Your task to perform on an android device: turn on bluetooth scan Image 0: 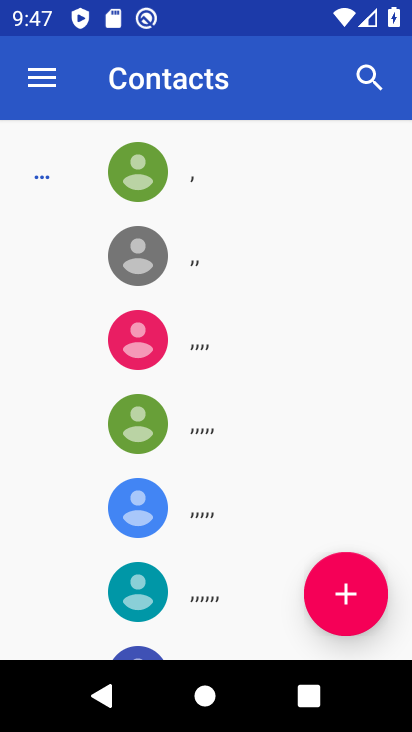
Step 0: drag from (139, 621) to (290, 319)
Your task to perform on an android device: turn on bluetooth scan Image 1: 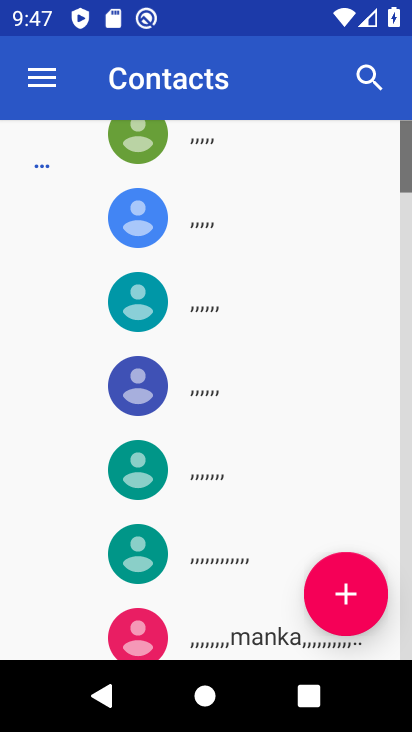
Step 1: press home button
Your task to perform on an android device: turn on bluetooth scan Image 2: 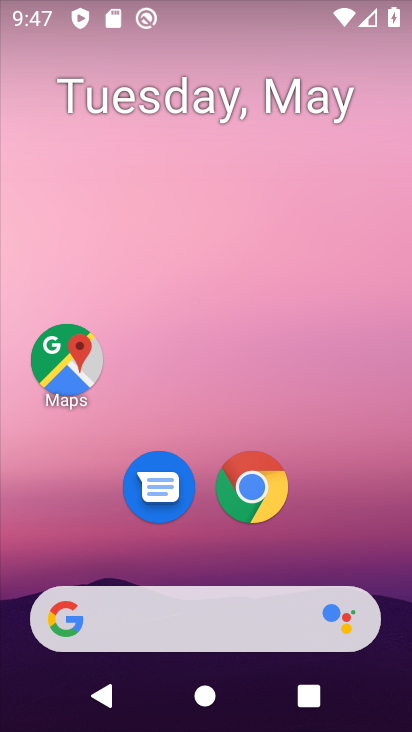
Step 2: drag from (194, 575) to (207, 82)
Your task to perform on an android device: turn on bluetooth scan Image 3: 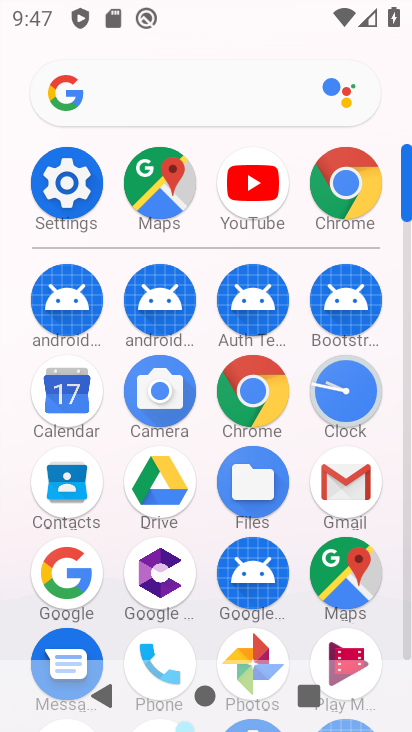
Step 3: click (68, 192)
Your task to perform on an android device: turn on bluetooth scan Image 4: 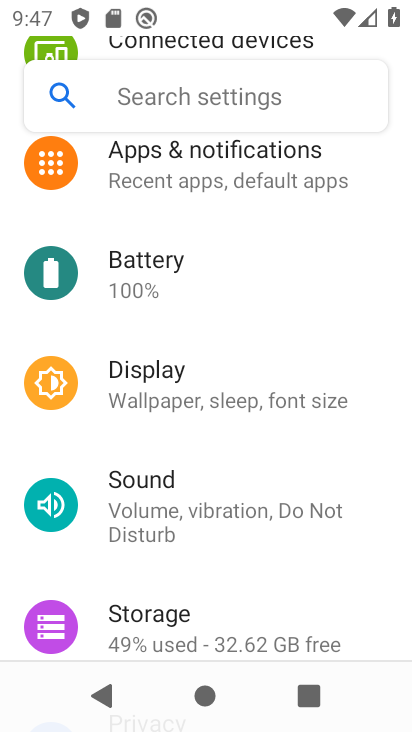
Step 4: click (193, 95)
Your task to perform on an android device: turn on bluetooth scan Image 5: 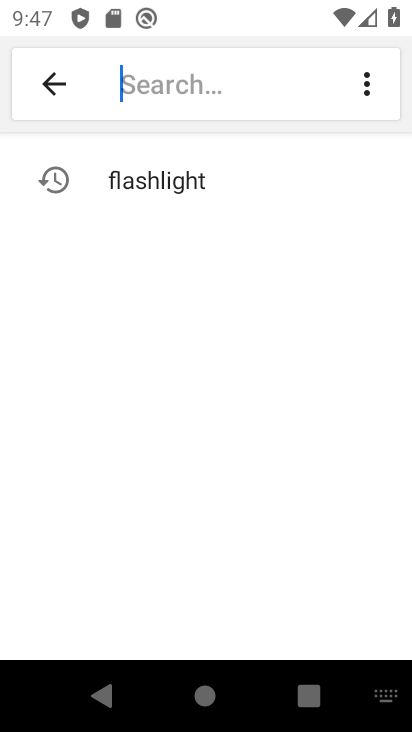
Step 5: type "bluetooth scan"
Your task to perform on an android device: turn on bluetooth scan Image 6: 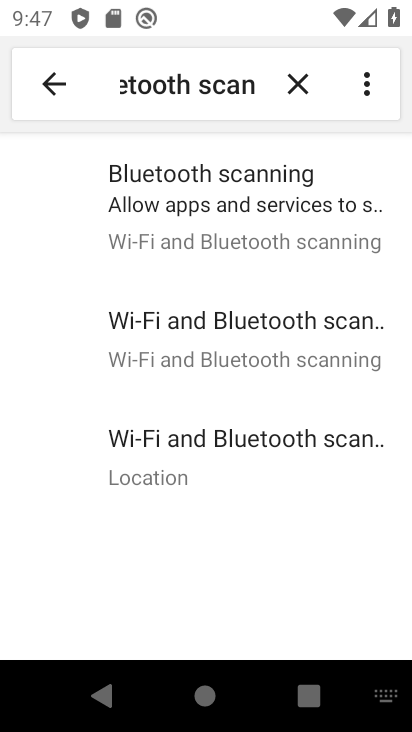
Step 6: click (238, 193)
Your task to perform on an android device: turn on bluetooth scan Image 7: 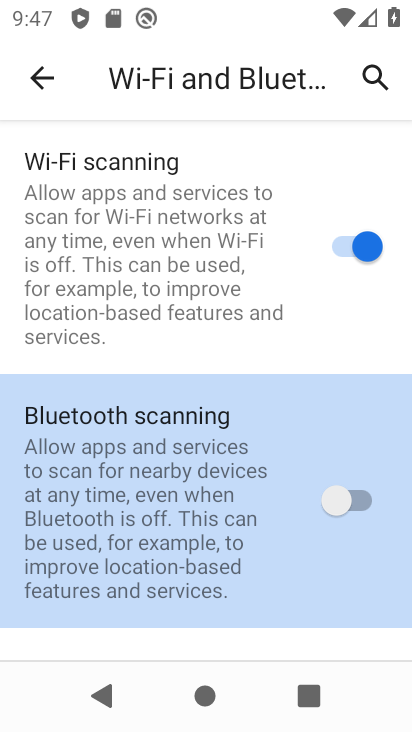
Step 7: click (343, 498)
Your task to perform on an android device: turn on bluetooth scan Image 8: 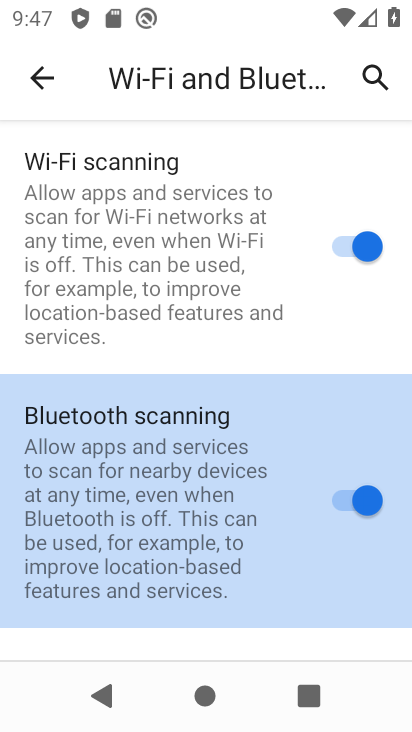
Step 8: task complete